Your task to perform on an android device: Open ESPN.com Image 0: 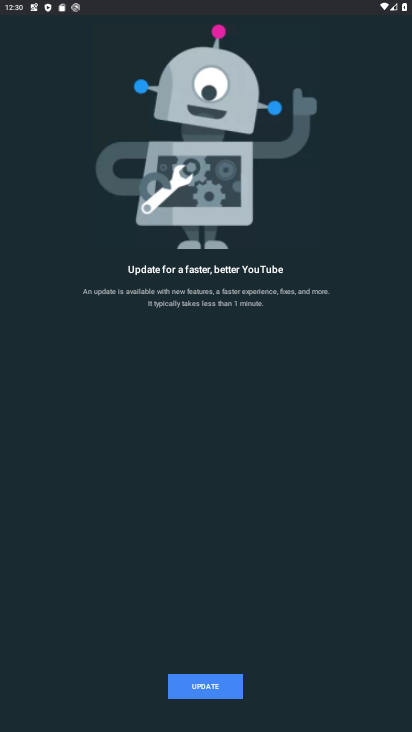
Step 0: press home button
Your task to perform on an android device: Open ESPN.com Image 1: 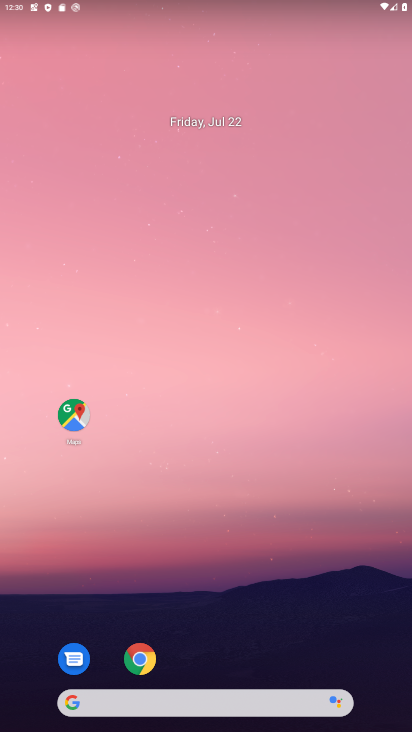
Step 1: click (133, 667)
Your task to perform on an android device: Open ESPN.com Image 2: 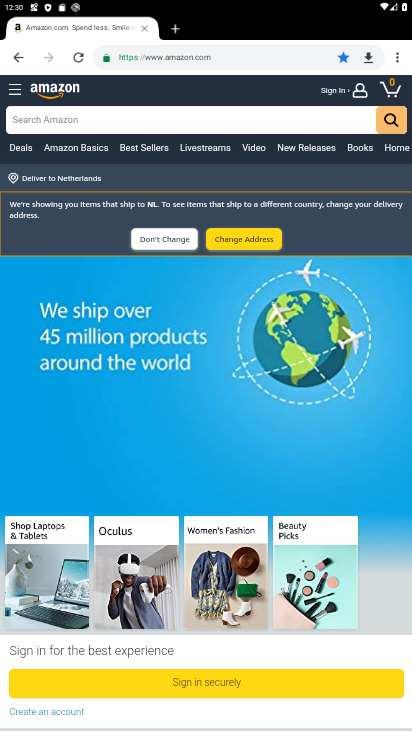
Step 2: click (147, 51)
Your task to perform on an android device: Open ESPN.com Image 3: 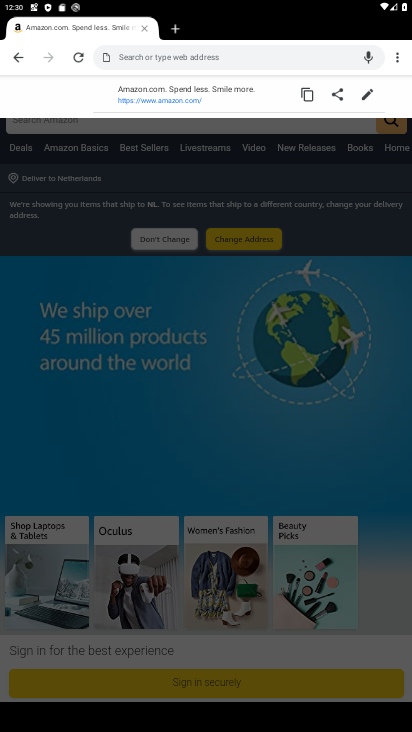
Step 3: type "www.espn.com"
Your task to perform on an android device: Open ESPN.com Image 4: 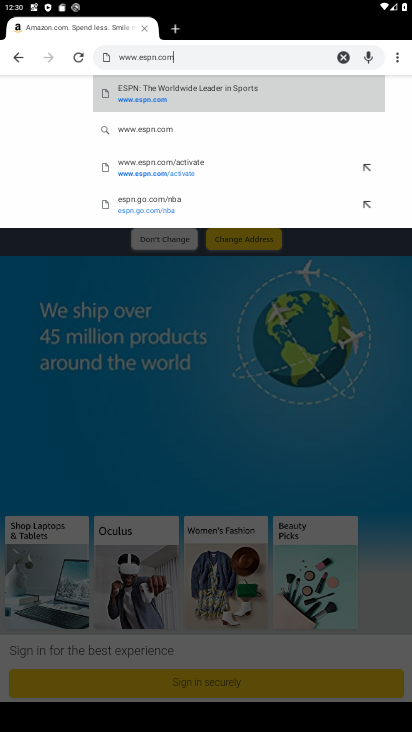
Step 4: click (148, 95)
Your task to perform on an android device: Open ESPN.com Image 5: 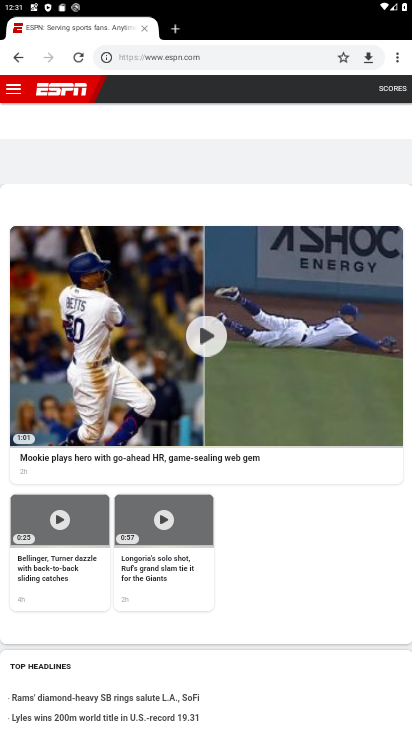
Step 5: task complete